Your task to perform on an android device: toggle sleep mode Image 0: 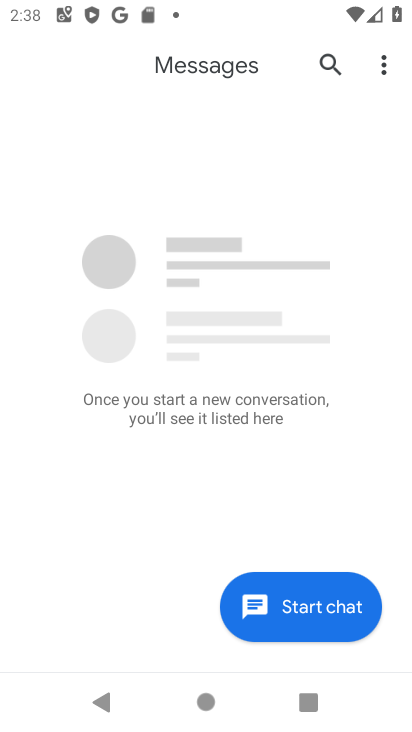
Step 0: press home button
Your task to perform on an android device: toggle sleep mode Image 1: 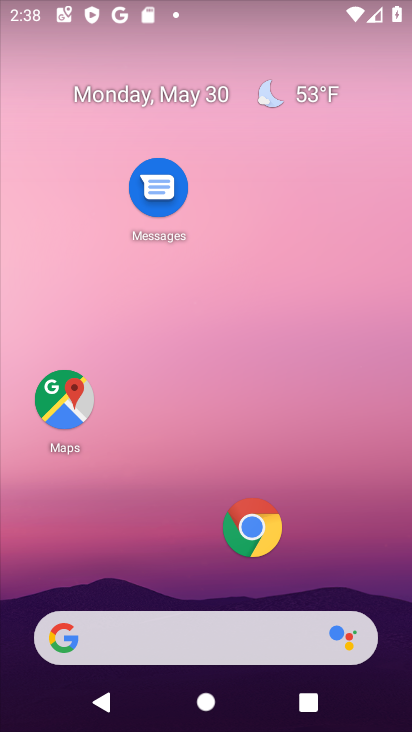
Step 1: task complete